Your task to perform on an android device: turn notification dots on Image 0: 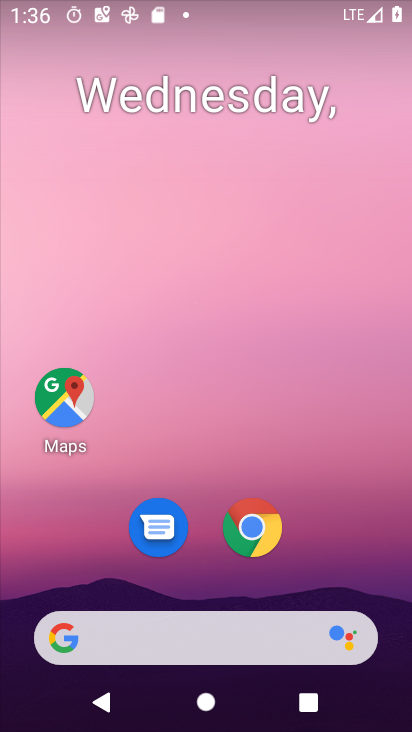
Step 0: drag from (174, 632) to (263, 12)
Your task to perform on an android device: turn notification dots on Image 1: 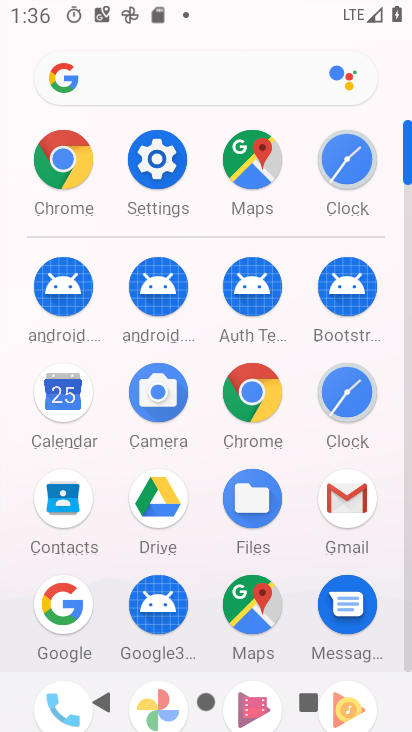
Step 1: click (152, 166)
Your task to perform on an android device: turn notification dots on Image 2: 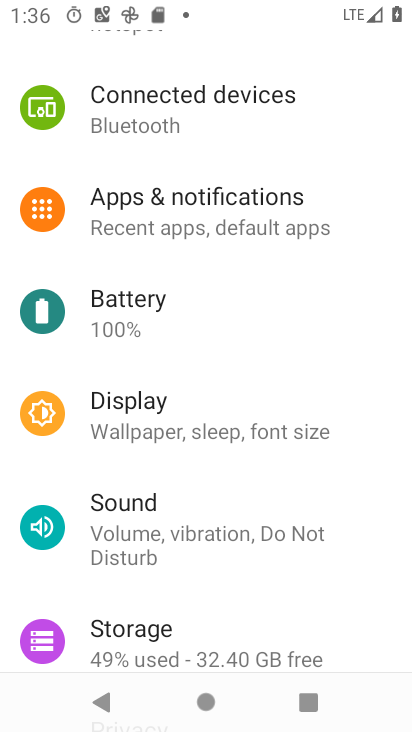
Step 2: click (199, 231)
Your task to perform on an android device: turn notification dots on Image 3: 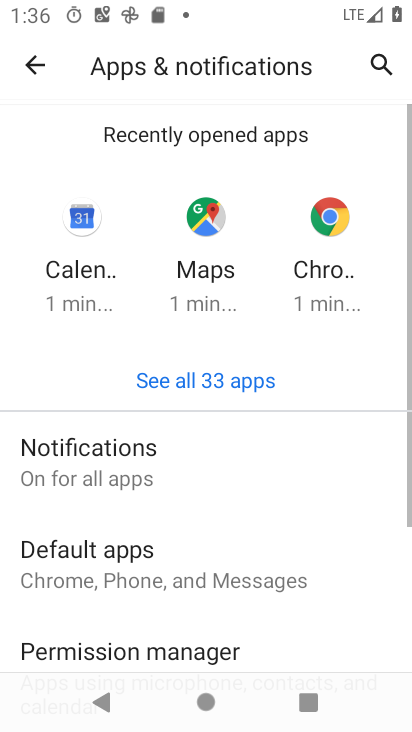
Step 3: drag from (175, 626) to (274, 97)
Your task to perform on an android device: turn notification dots on Image 4: 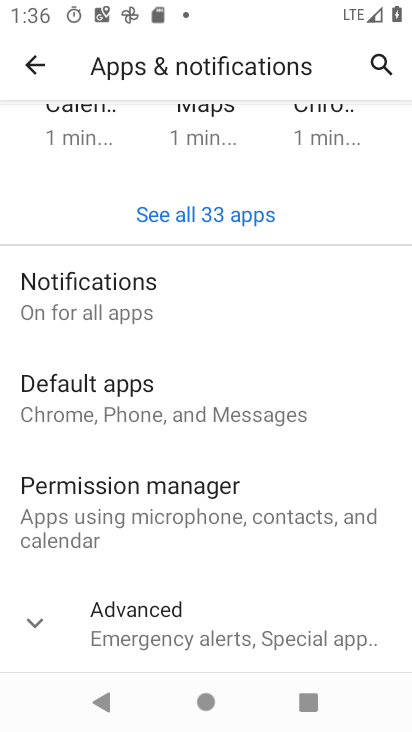
Step 4: click (165, 635)
Your task to perform on an android device: turn notification dots on Image 5: 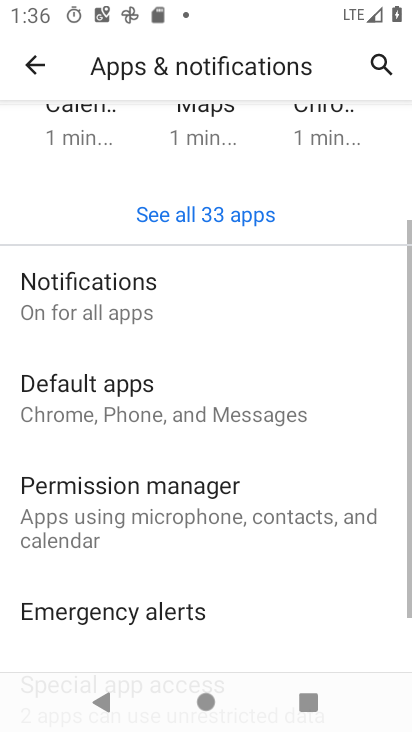
Step 5: drag from (169, 575) to (194, 245)
Your task to perform on an android device: turn notification dots on Image 6: 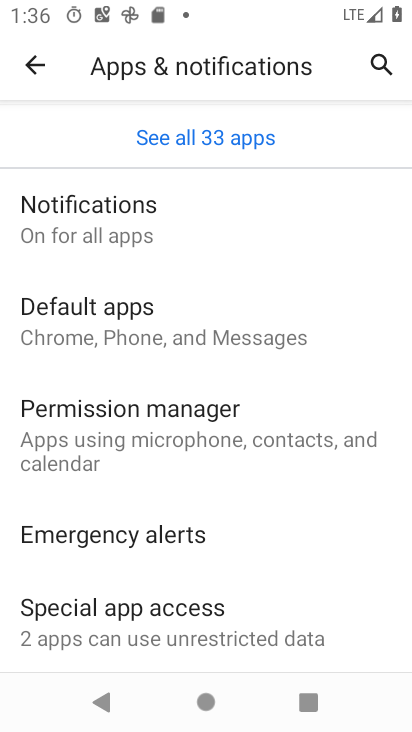
Step 6: click (124, 246)
Your task to perform on an android device: turn notification dots on Image 7: 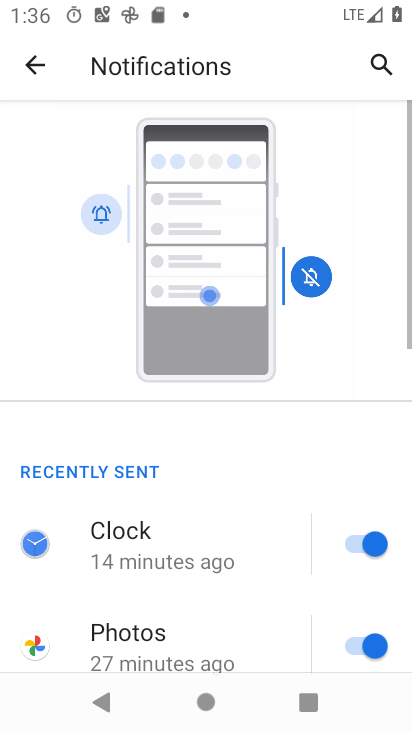
Step 7: drag from (190, 594) to (289, 169)
Your task to perform on an android device: turn notification dots on Image 8: 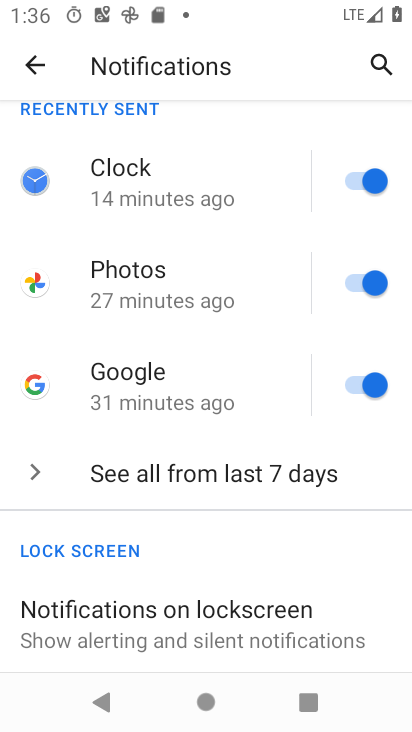
Step 8: drag from (273, 436) to (347, 103)
Your task to perform on an android device: turn notification dots on Image 9: 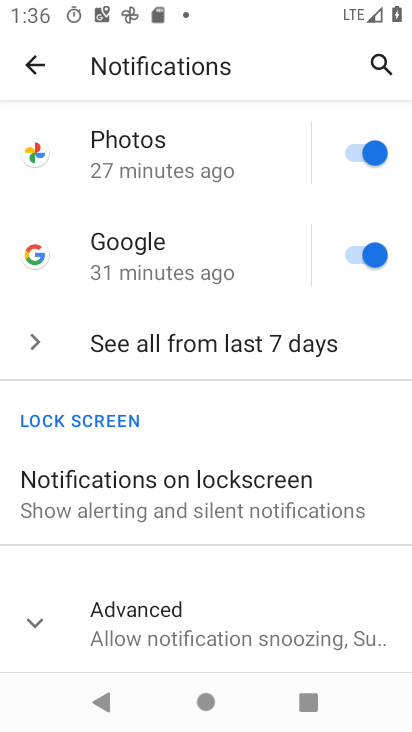
Step 9: click (181, 628)
Your task to perform on an android device: turn notification dots on Image 10: 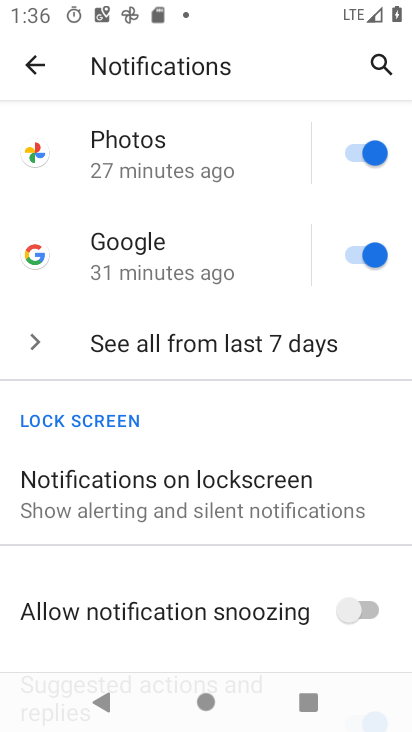
Step 10: task complete